Your task to perform on an android device: Open internet settings Image 0: 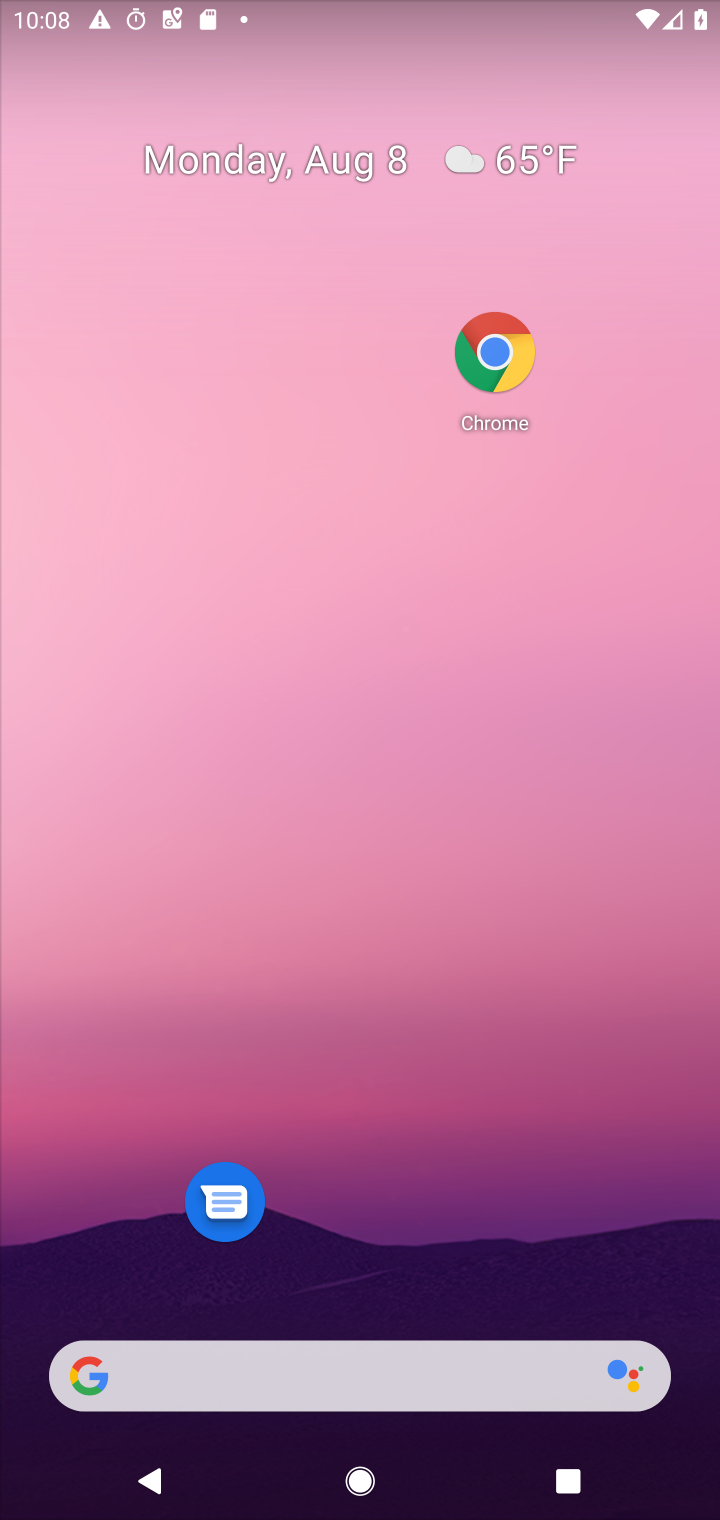
Step 0: drag from (478, 1235) to (621, 11)
Your task to perform on an android device: Open internet settings Image 1: 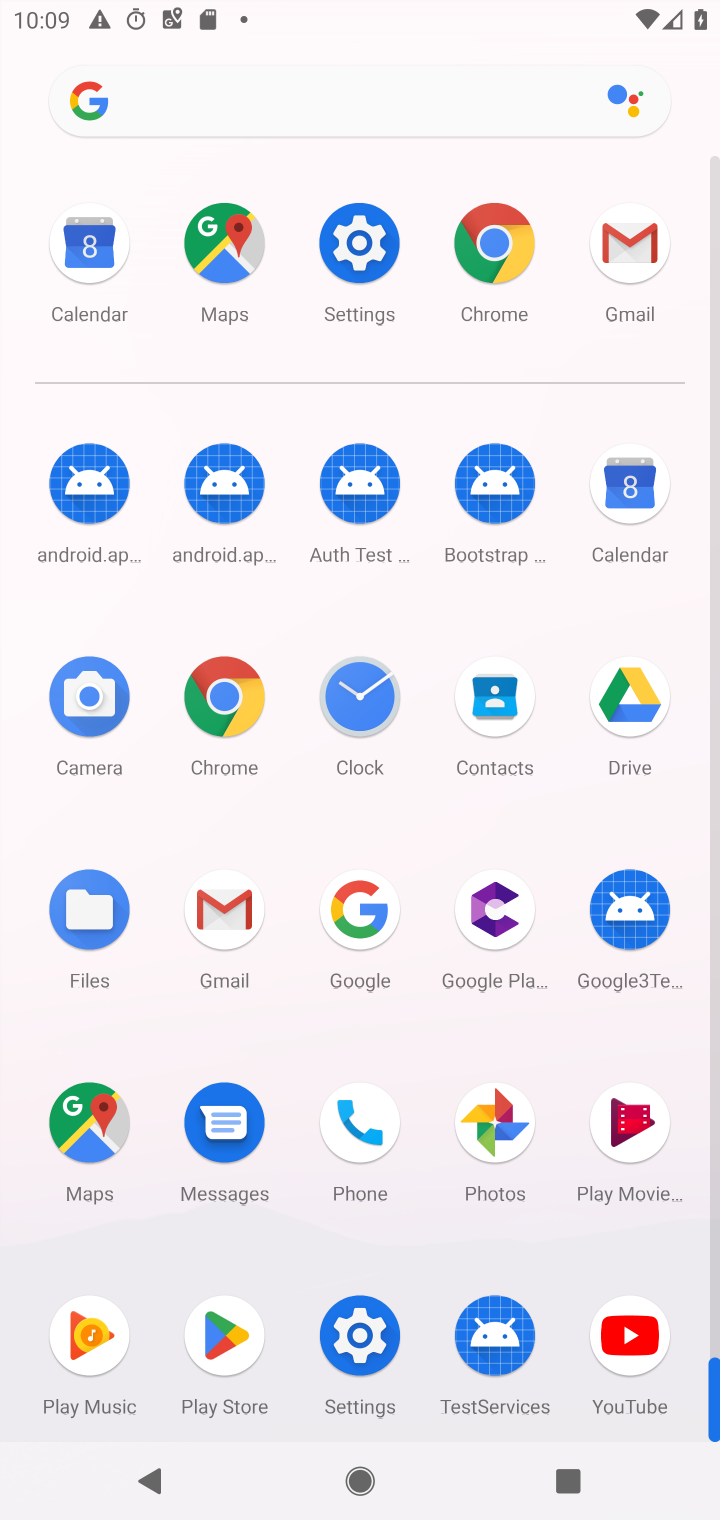
Step 1: click (364, 255)
Your task to perform on an android device: Open internet settings Image 2: 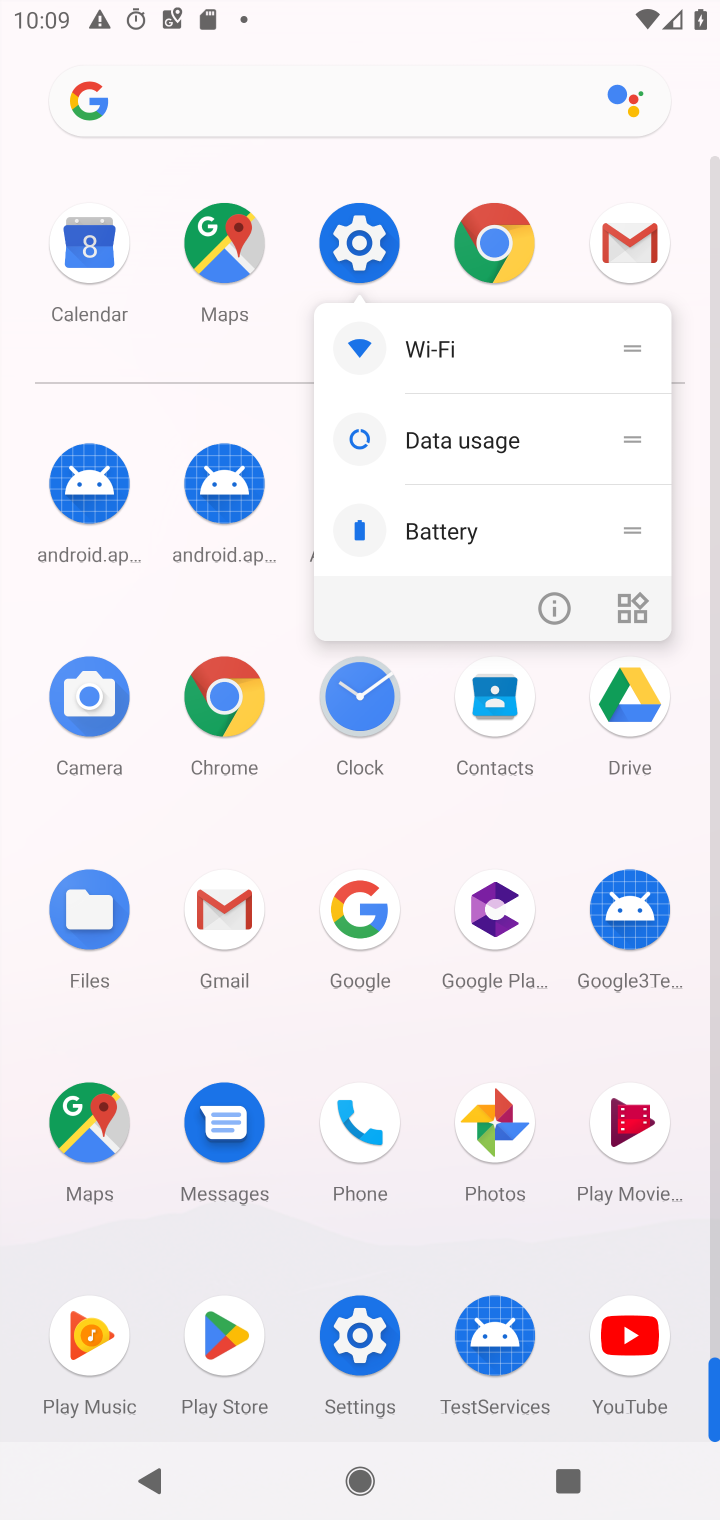
Step 2: click (374, 248)
Your task to perform on an android device: Open internet settings Image 3: 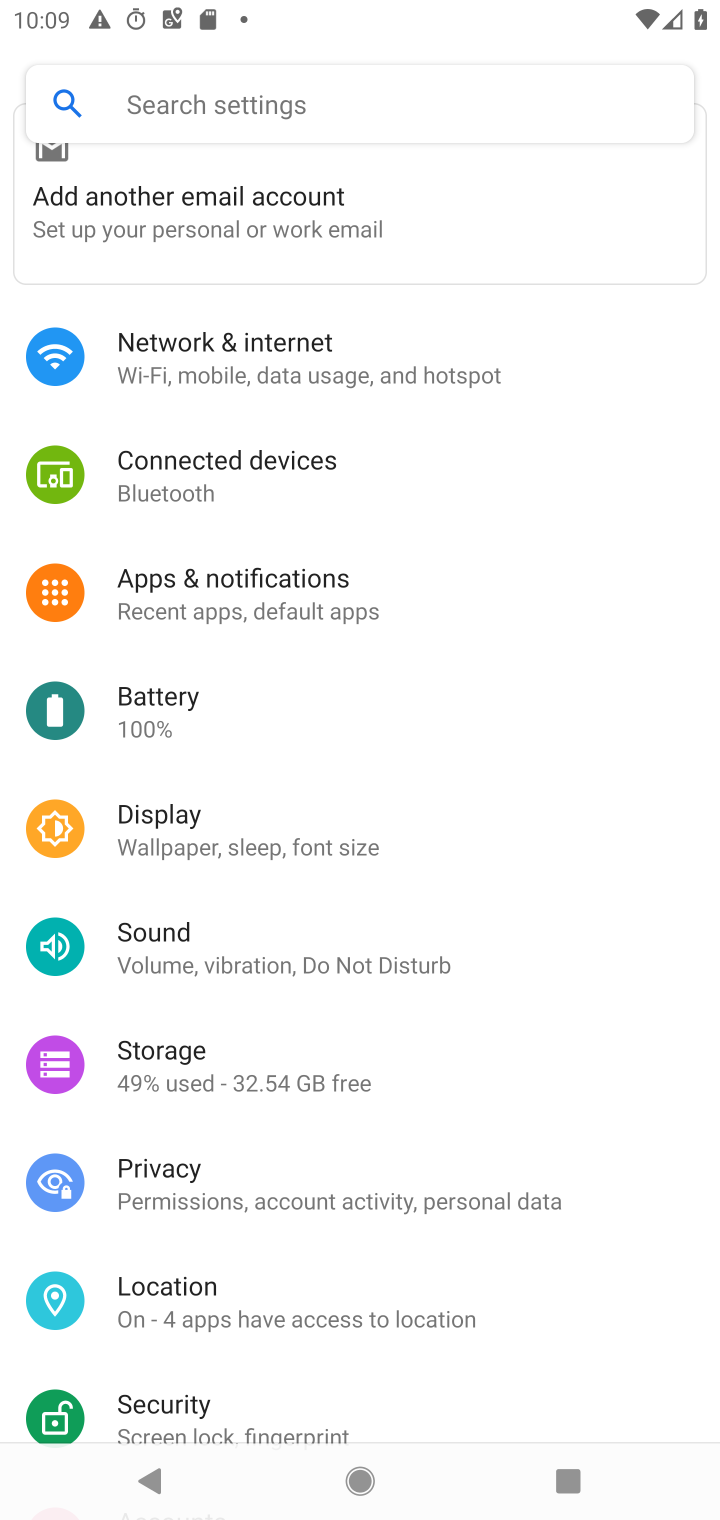
Step 3: click (301, 348)
Your task to perform on an android device: Open internet settings Image 4: 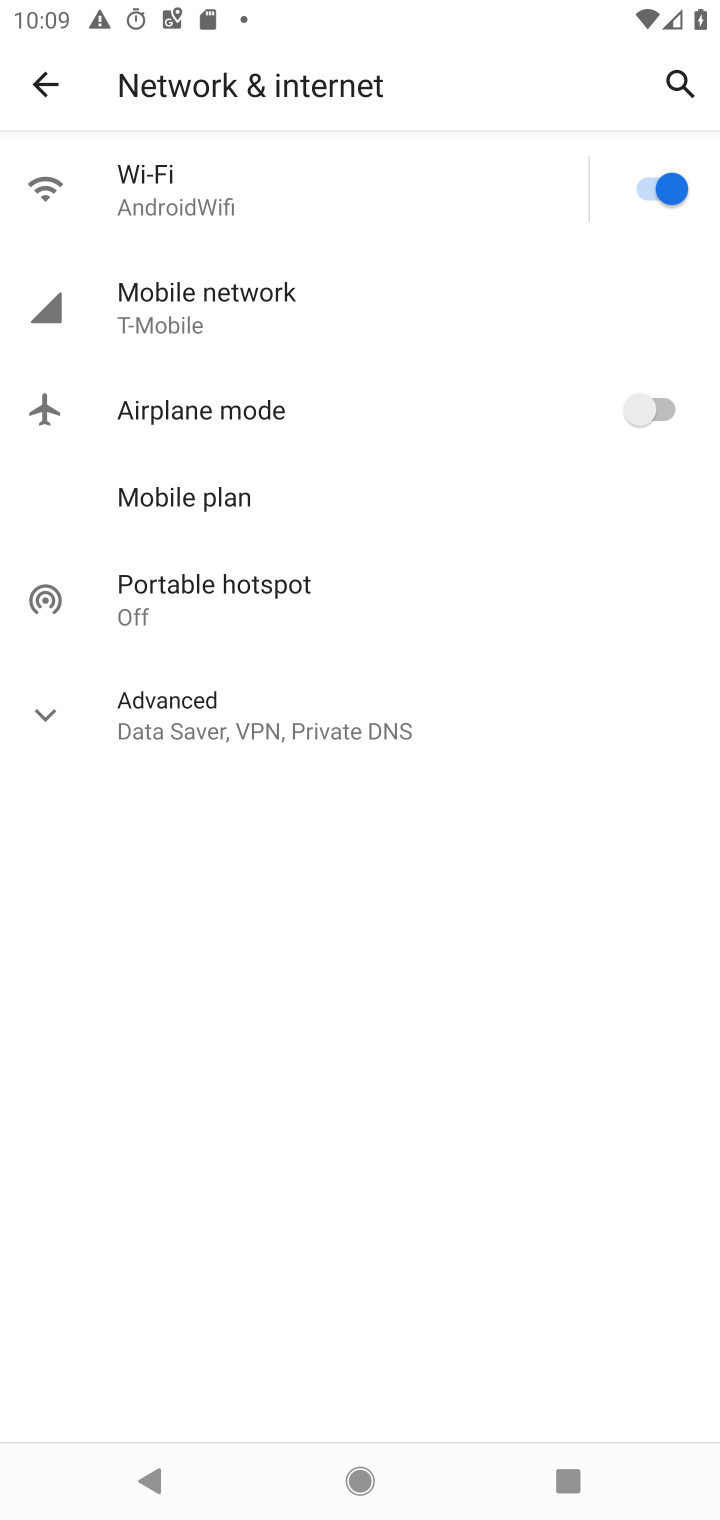
Step 4: click (282, 310)
Your task to perform on an android device: Open internet settings Image 5: 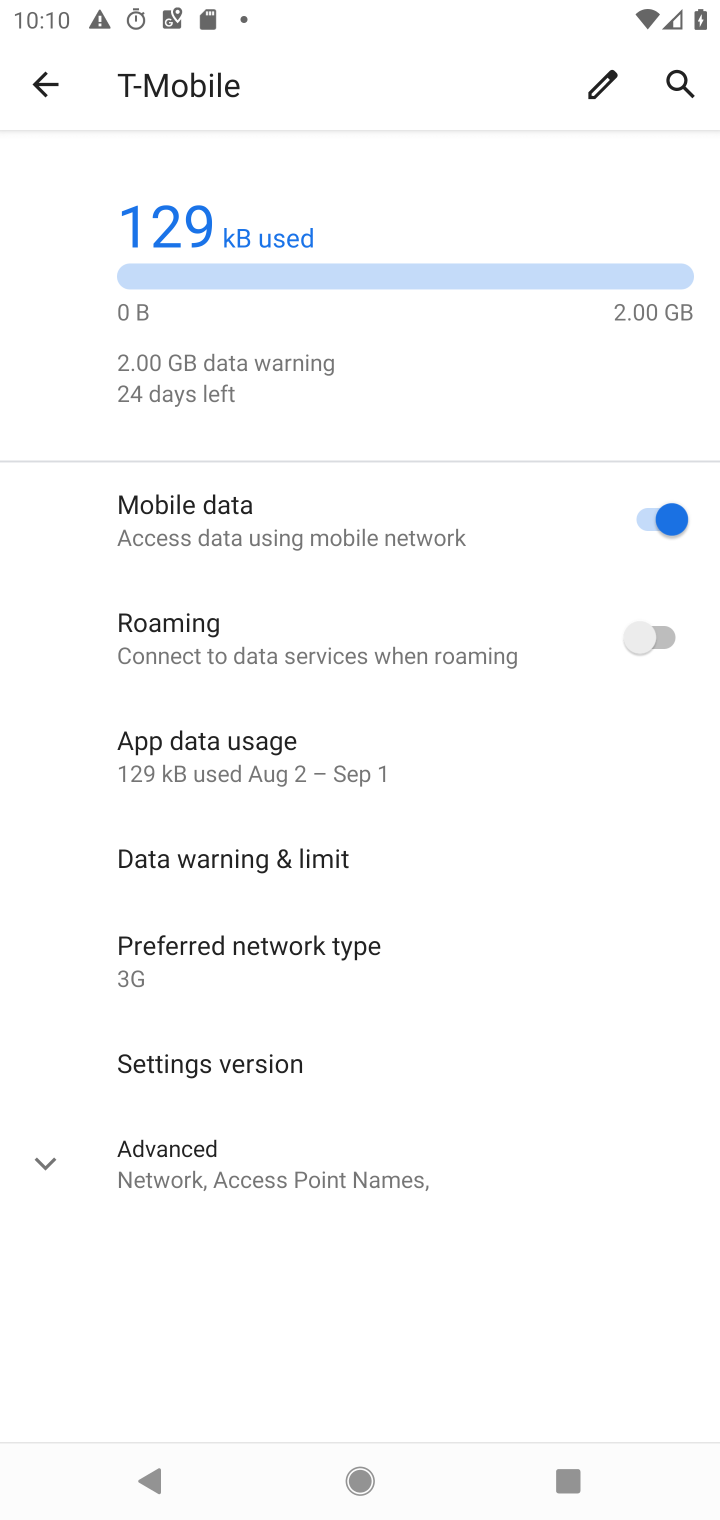
Step 5: click (249, 750)
Your task to perform on an android device: Open internet settings Image 6: 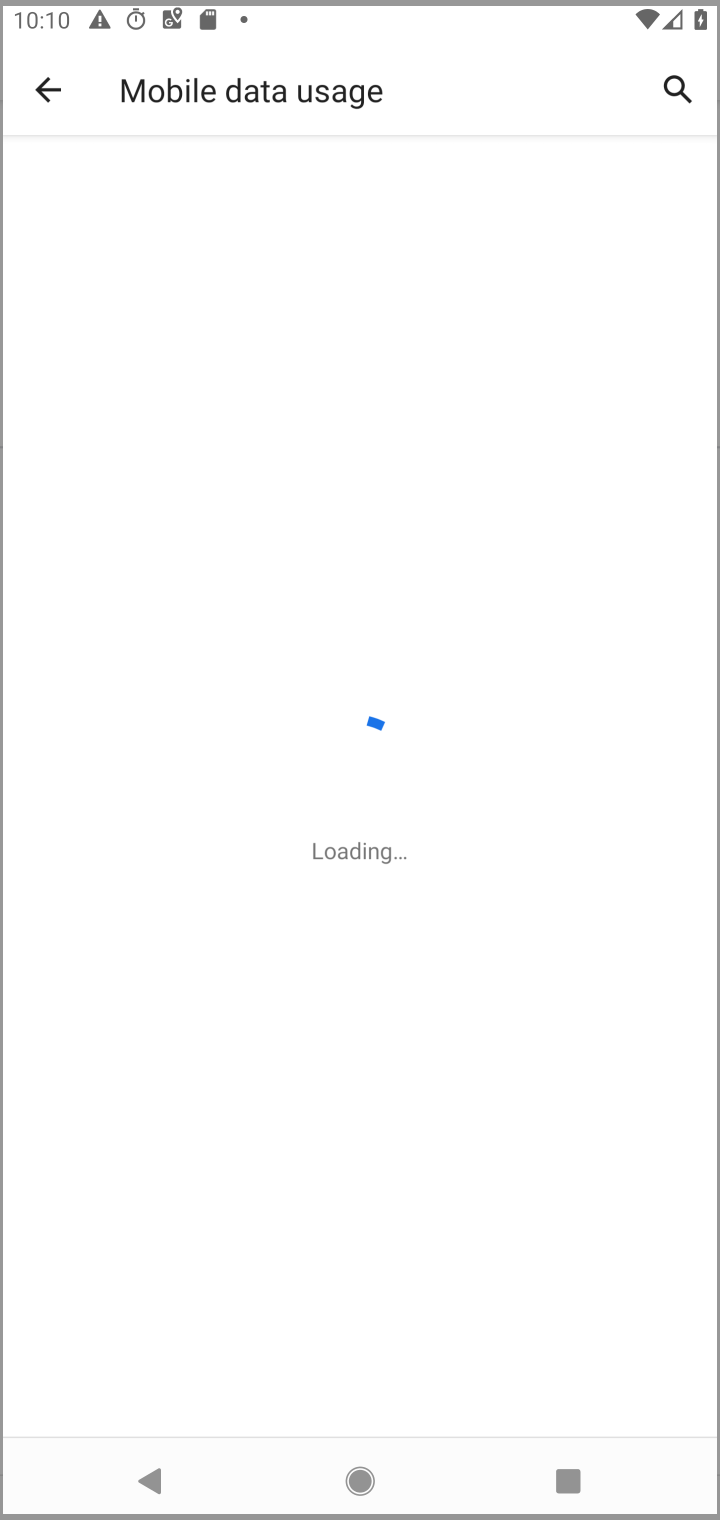
Step 6: task complete